Your task to perform on an android device: turn on data saver in the chrome app Image 0: 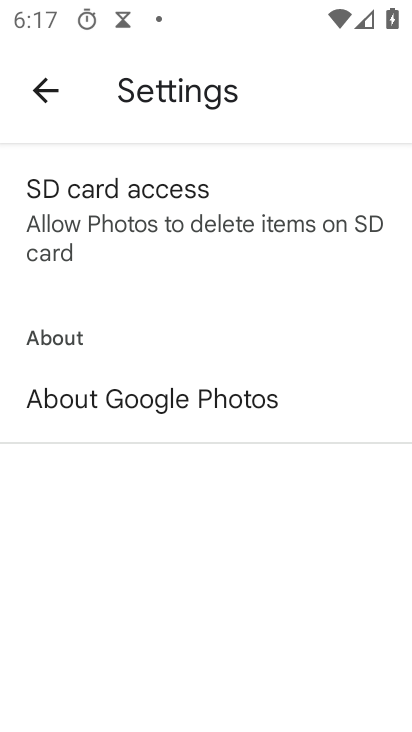
Step 0: press home button
Your task to perform on an android device: turn on data saver in the chrome app Image 1: 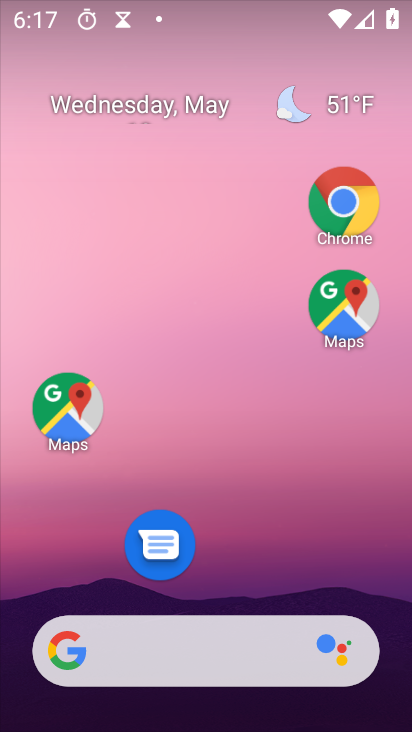
Step 1: click (351, 222)
Your task to perform on an android device: turn on data saver in the chrome app Image 2: 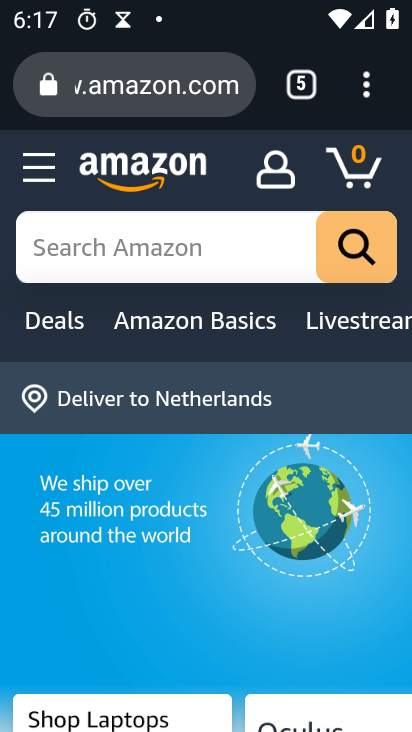
Step 2: click (366, 90)
Your task to perform on an android device: turn on data saver in the chrome app Image 3: 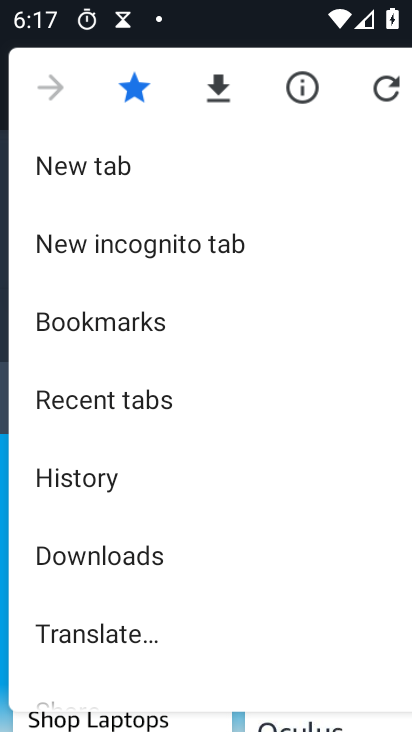
Step 3: click (171, 185)
Your task to perform on an android device: turn on data saver in the chrome app Image 4: 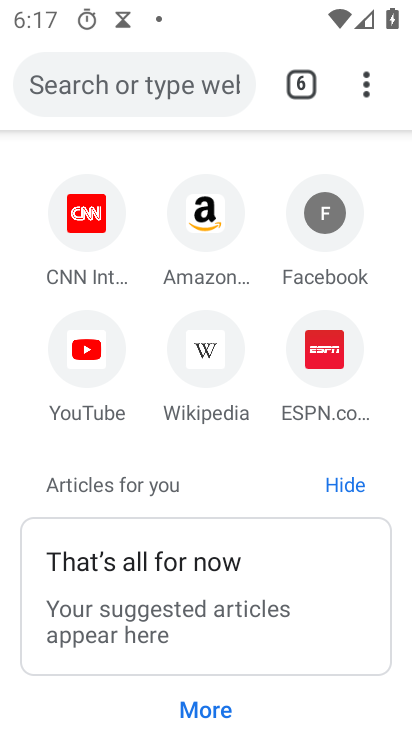
Step 4: click (369, 69)
Your task to perform on an android device: turn on data saver in the chrome app Image 5: 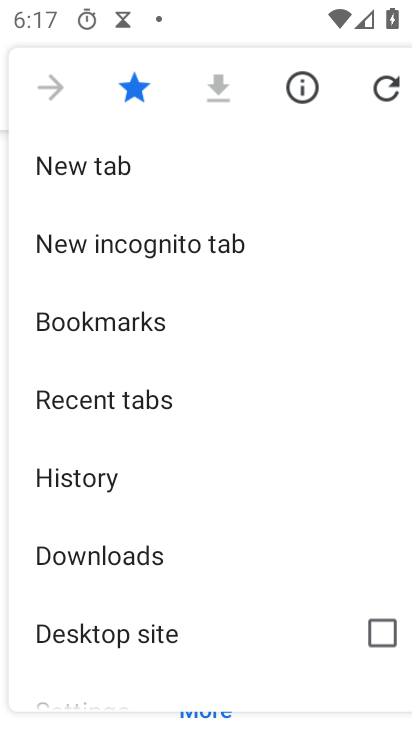
Step 5: drag from (150, 587) to (131, 396)
Your task to perform on an android device: turn on data saver in the chrome app Image 6: 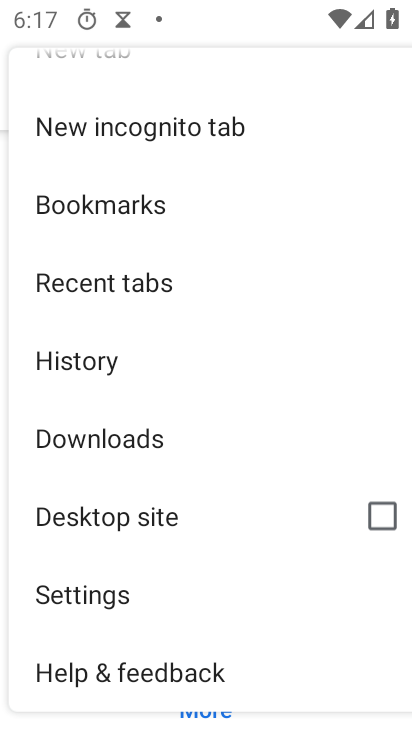
Step 6: click (73, 606)
Your task to perform on an android device: turn on data saver in the chrome app Image 7: 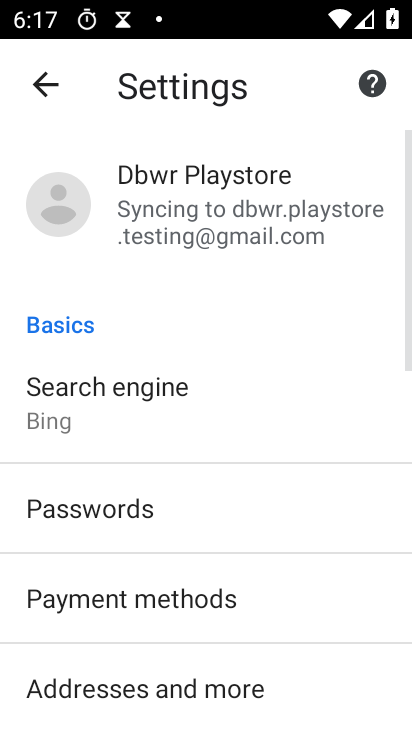
Step 7: drag from (117, 609) to (185, 317)
Your task to perform on an android device: turn on data saver in the chrome app Image 8: 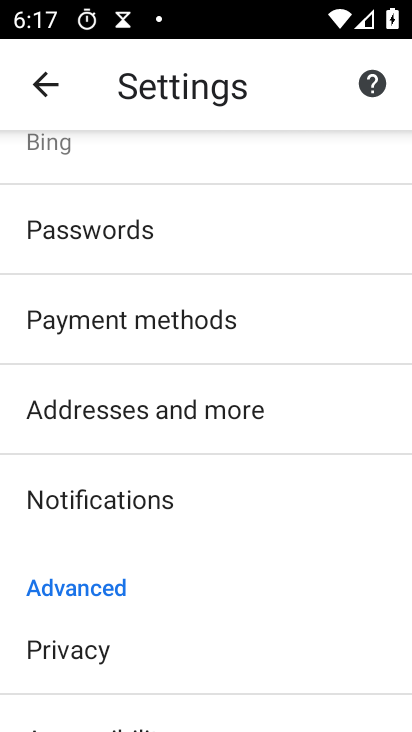
Step 8: drag from (137, 570) to (147, 324)
Your task to perform on an android device: turn on data saver in the chrome app Image 9: 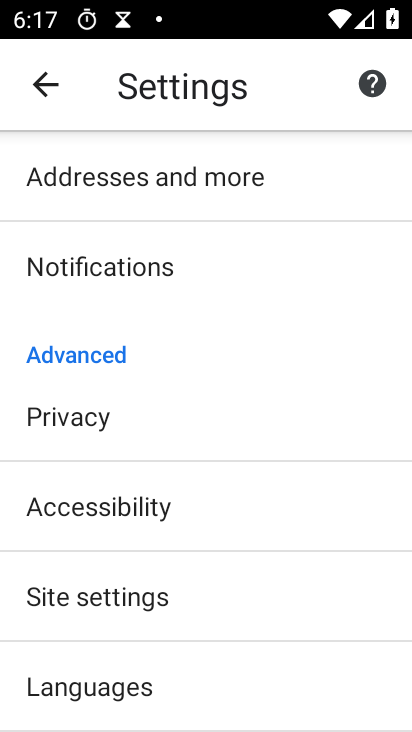
Step 9: drag from (108, 617) to (99, 380)
Your task to perform on an android device: turn on data saver in the chrome app Image 10: 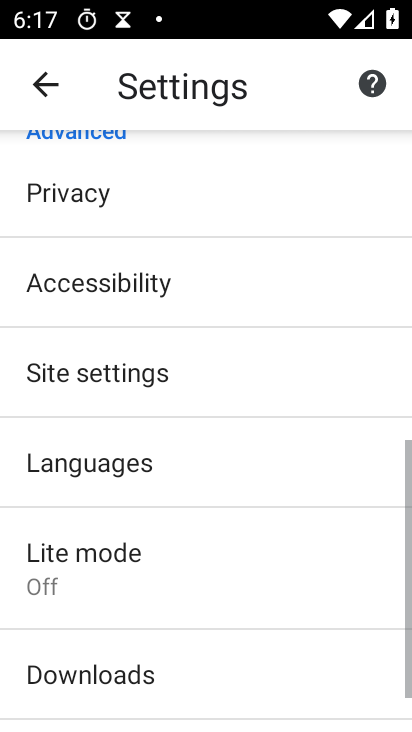
Step 10: click (65, 588)
Your task to perform on an android device: turn on data saver in the chrome app Image 11: 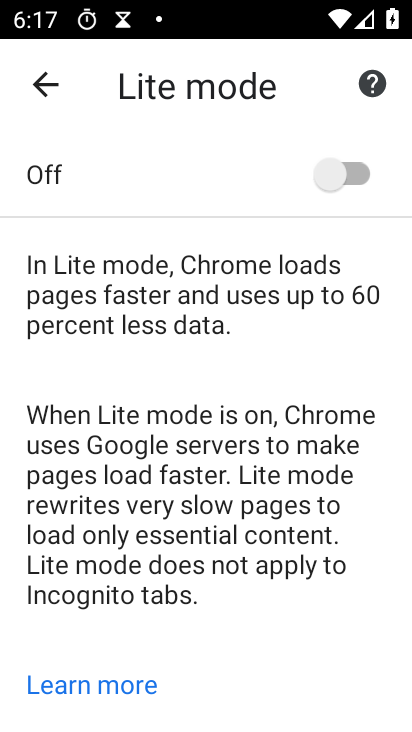
Step 11: click (348, 172)
Your task to perform on an android device: turn on data saver in the chrome app Image 12: 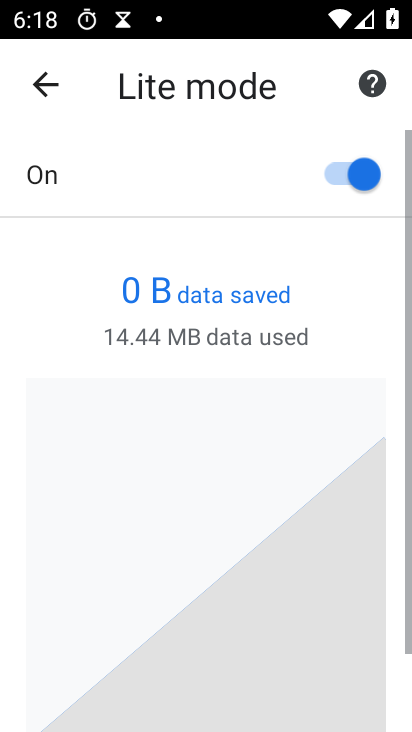
Step 12: task complete